Your task to perform on an android device: turn off notifications settings in the gmail app Image 0: 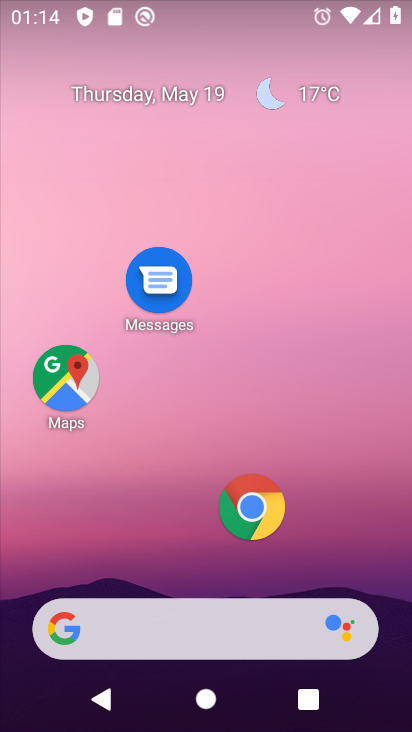
Step 0: drag from (227, 595) to (272, 342)
Your task to perform on an android device: turn off notifications settings in the gmail app Image 1: 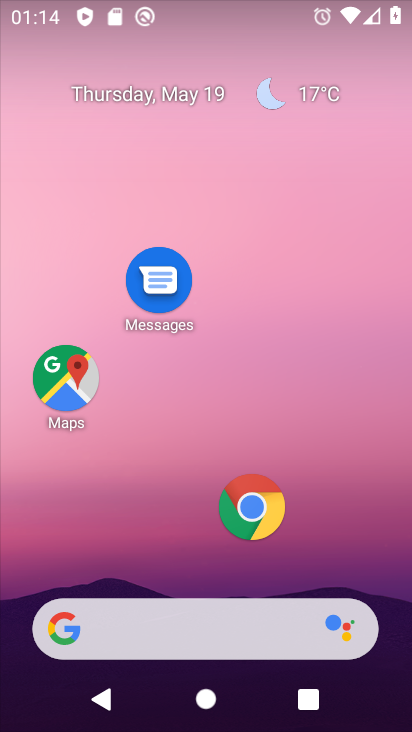
Step 1: drag from (212, 597) to (273, 159)
Your task to perform on an android device: turn off notifications settings in the gmail app Image 2: 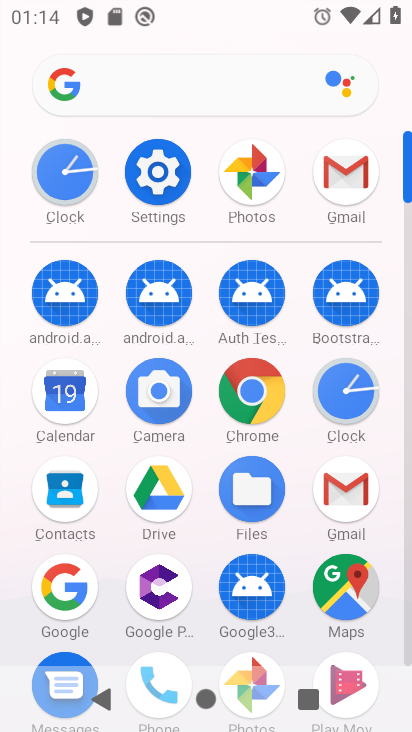
Step 2: click (342, 180)
Your task to perform on an android device: turn off notifications settings in the gmail app Image 3: 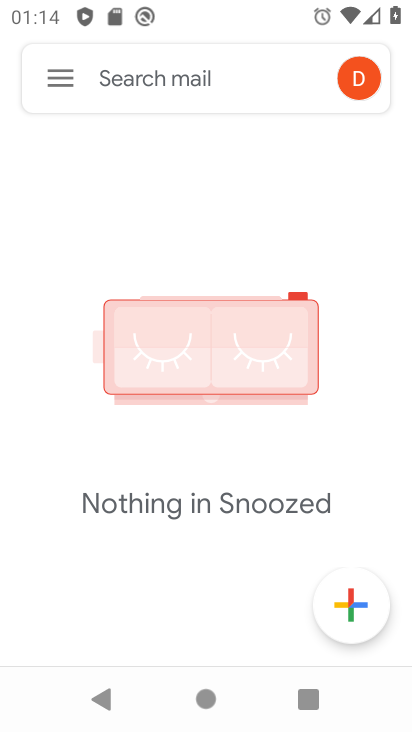
Step 3: click (64, 77)
Your task to perform on an android device: turn off notifications settings in the gmail app Image 4: 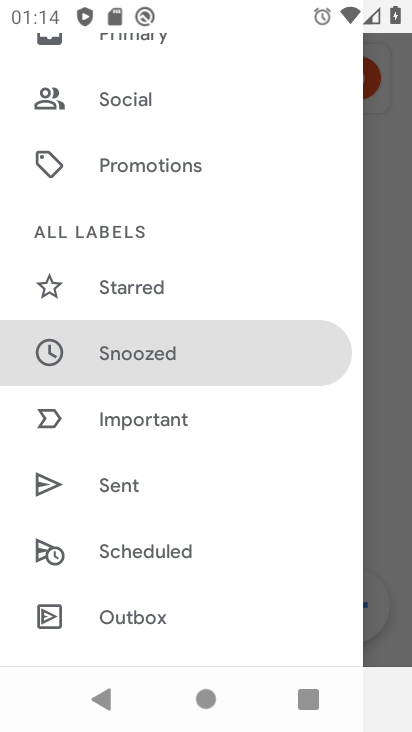
Step 4: drag from (136, 610) to (190, 137)
Your task to perform on an android device: turn off notifications settings in the gmail app Image 5: 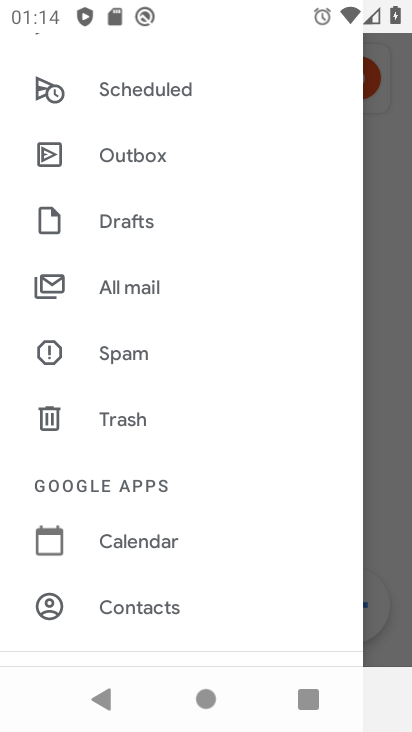
Step 5: drag from (155, 627) to (201, 286)
Your task to perform on an android device: turn off notifications settings in the gmail app Image 6: 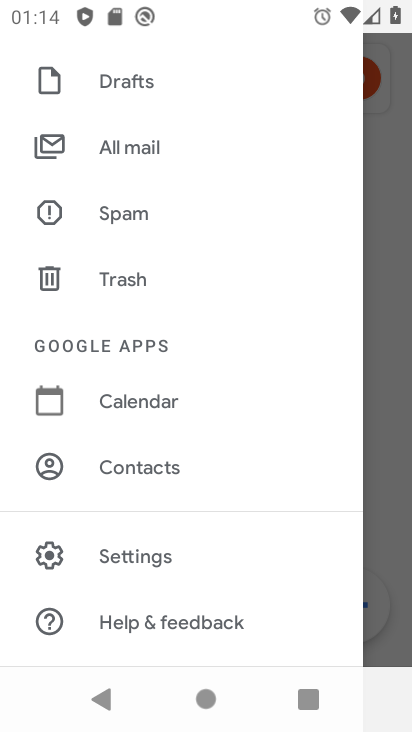
Step 6: click (164, 553)
Your task to perform on an android device: turn off notifications settings in the gmail app Image 7: 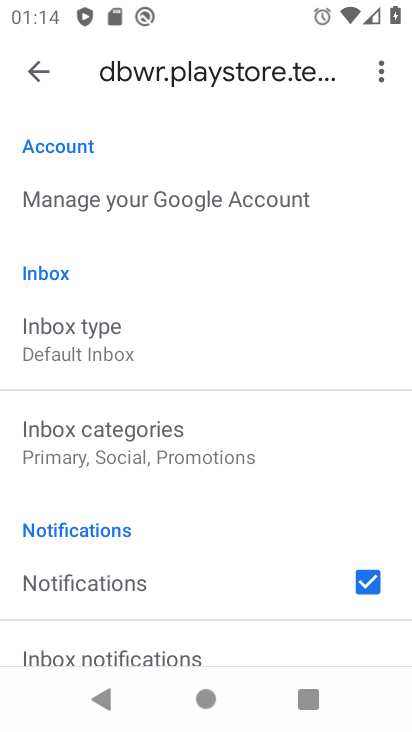
Step 7: drag from (150, 634) to (202, 247)
Your task to perform on an android device: turn off notifications settings in the gmail app Image 8: 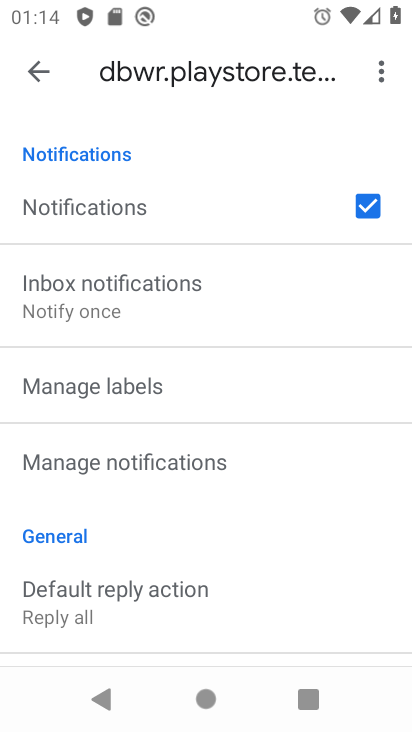
Step 8: drag from (147, 613) to (210, 308)
Your task to perform on an android device: turn off notifications settings in the gmail app Image 9: 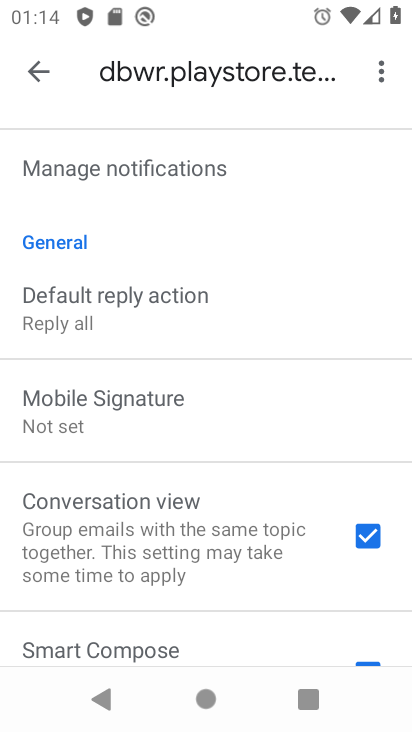
Step 9: drag from (234, 162) to (223, 572)
Your task to perform on an android device: turn off notifications settings in the gmail app Image 10: 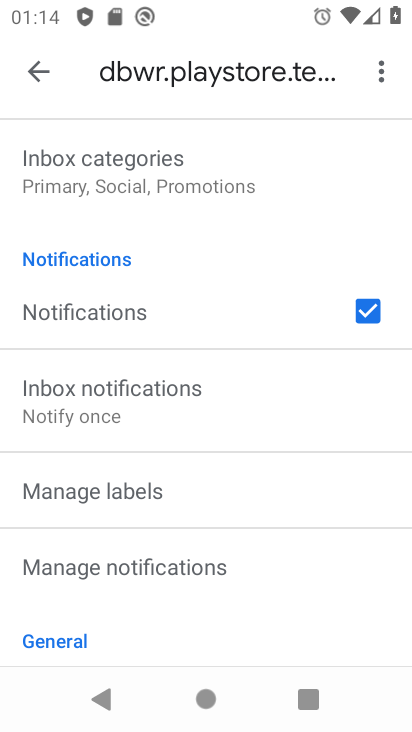
Step 10: click (33, 69)
Your task to perform on an android device: turn off notifications settings in the gmail app Image 11: 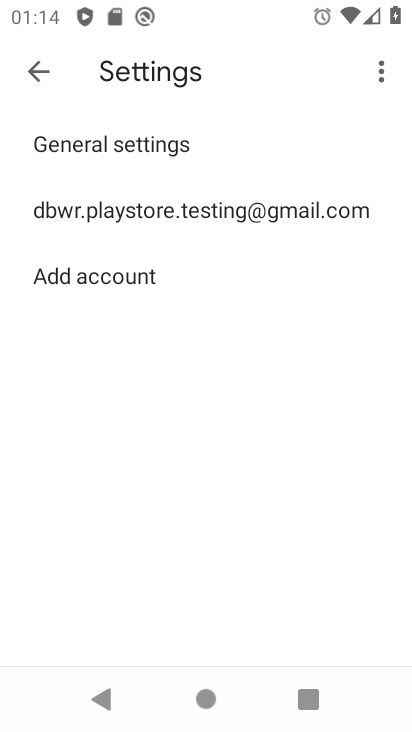
Step 11: click (124, 143)
Your task to perform on an android device: turn off notifications settings in the gmail app Image 12: 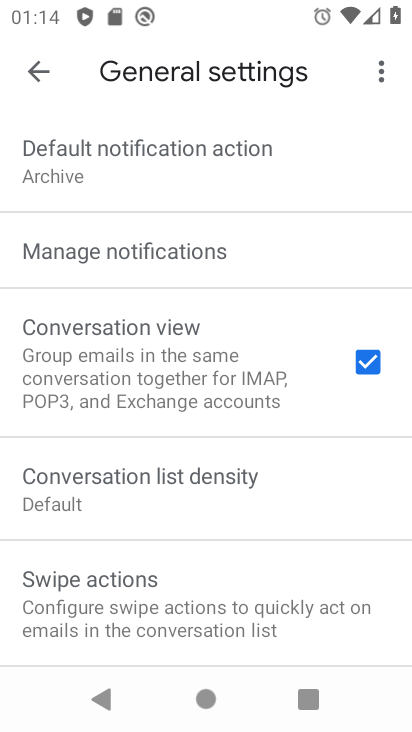
Step 12: click (139, 247)
Your task to perform on an android device: turn off notifications settings in the gmail app Image 13: 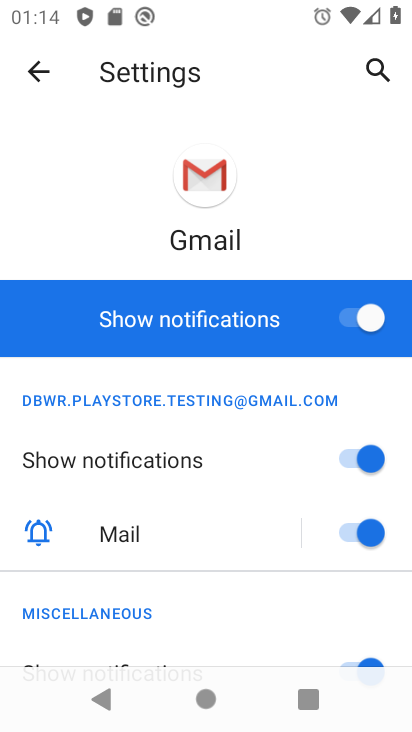
Step 13: click (348, 320)
Your task to perform on an android device: turn off notifications settings in the gmail app Image 14: 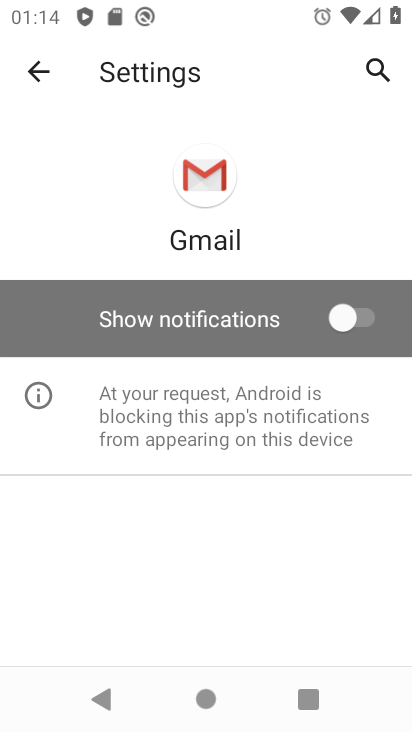
Step 14: task complete